Your task to perform on an android device: all mails in gmail Image 0: 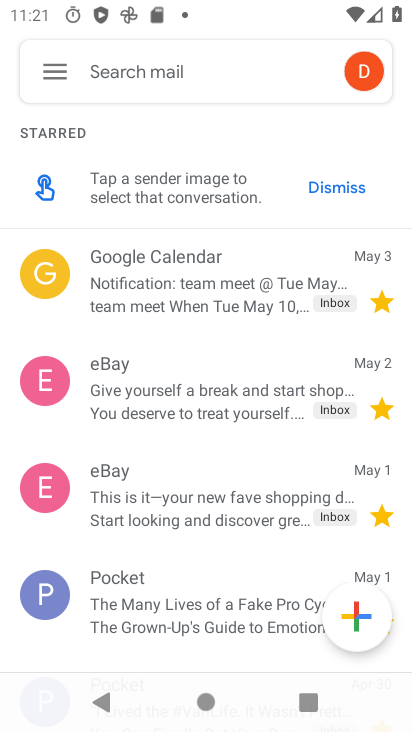
Step 0: click (56, 71)
Your task to perform on an android device: all mails in gmail Image 1: 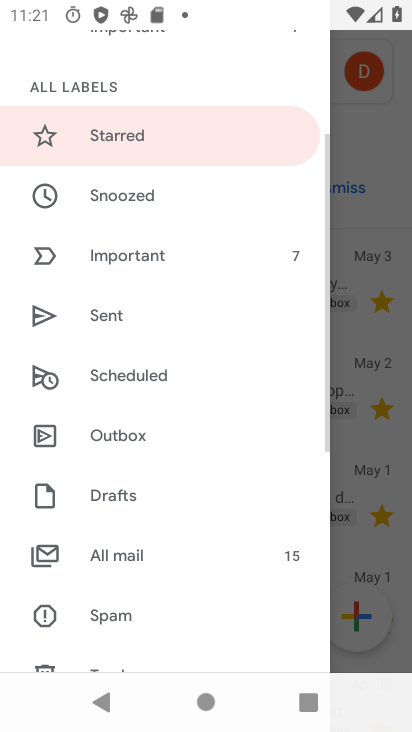
Step 1: drag from (217, 557) to (235, 202)
Your task to perform on an android device: all mails in gmail Image 2: 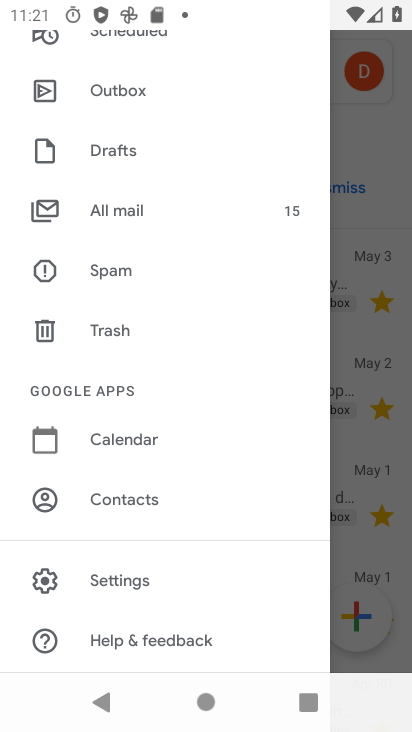
Step 2: click (131, 217)
Your task to perform on an android device: all mails in gmail Image 3: 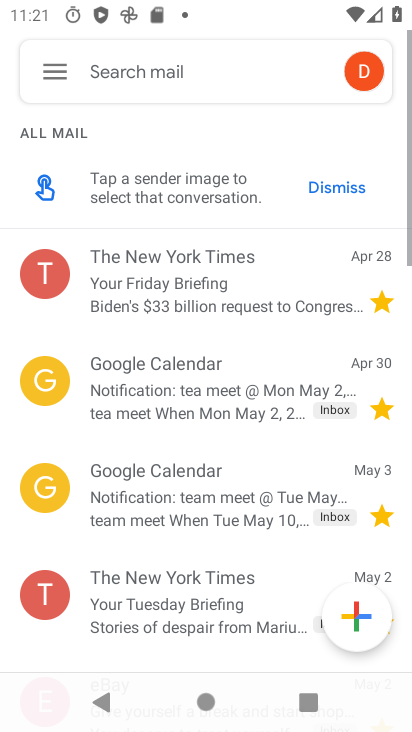
Step 3: task complete